Your task to perform on an android device: turn smart compose on in the gmail app Image 0: 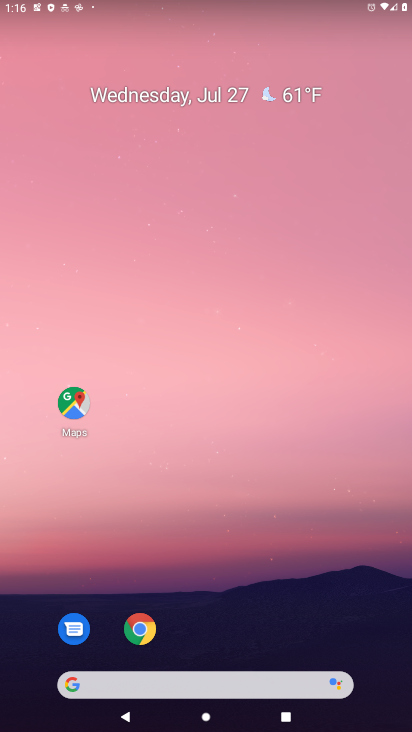
Step 0: drag from (265, 627) to (218, 110)
Your task to perform on an android device: turn smart compose on in the gmail app Image 1: 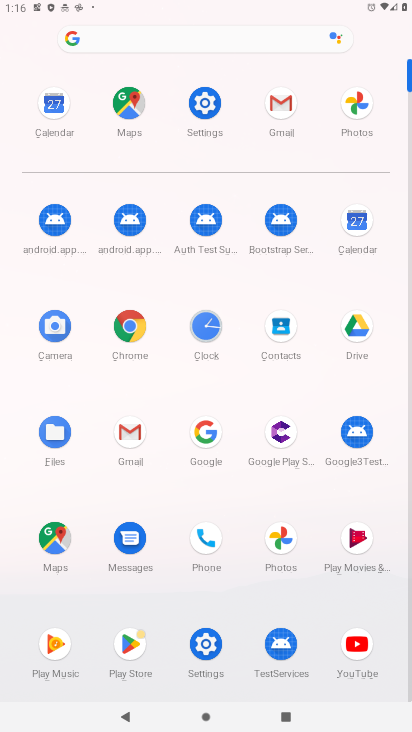
Step 1: click (265, 106)
Your task to perform on an android device: turn smart compose on in the gmail app Image 2: 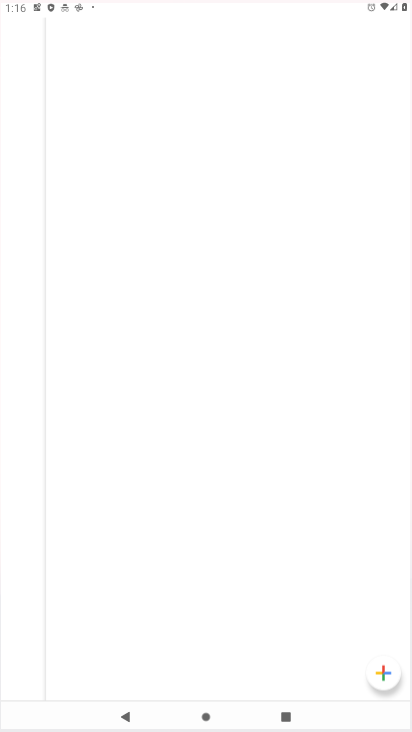
Step 2: task complete